Your task to perform on an android device: Is it going to rain tomorrow? Image 0: 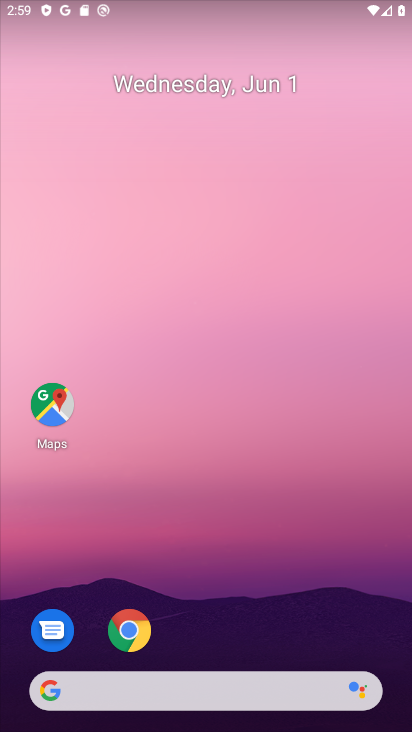
Step 0: drag from (263, 600) to (293, 77)
Your task to perform on an android device: Is it going to rain tomorrow? Image 1: 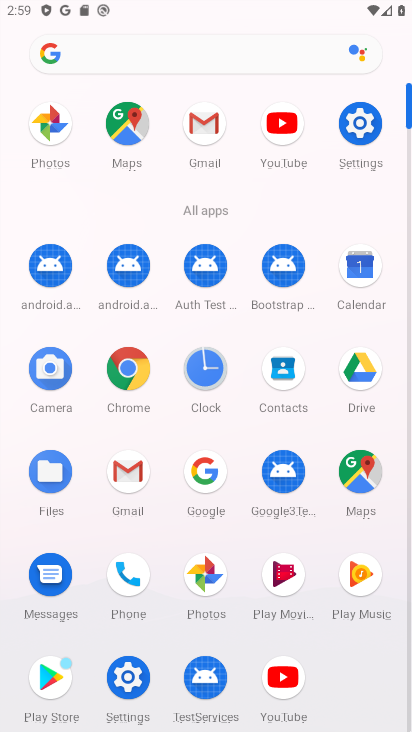
Step 1: click (169, 53)
Your task to perform on an android device: Is it going to rain tomorrow? Image 2: 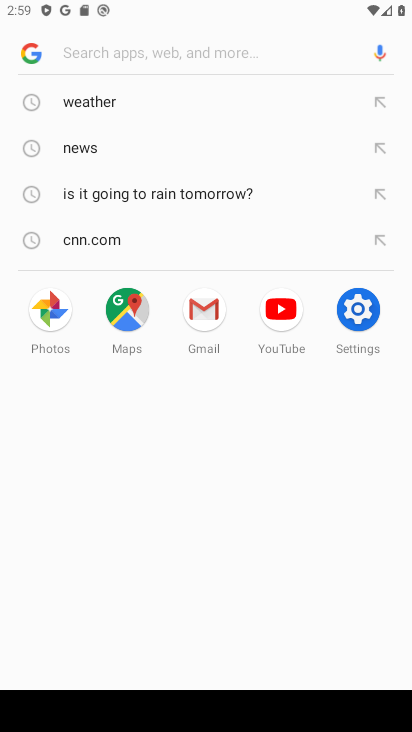
Step 2: click (110, 102)
Your task to perform on an android device: Is it going to rain tomorrow? Image 3: 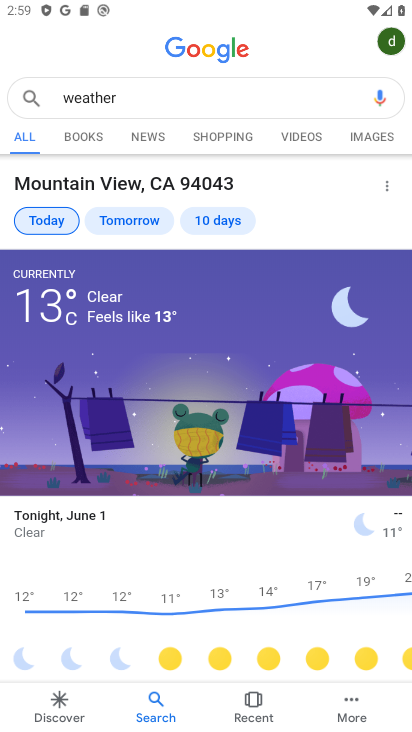
Step 3: click (126, 226)
Your task to perform on an android device: Is it going to rain tomorrow? Image 4: 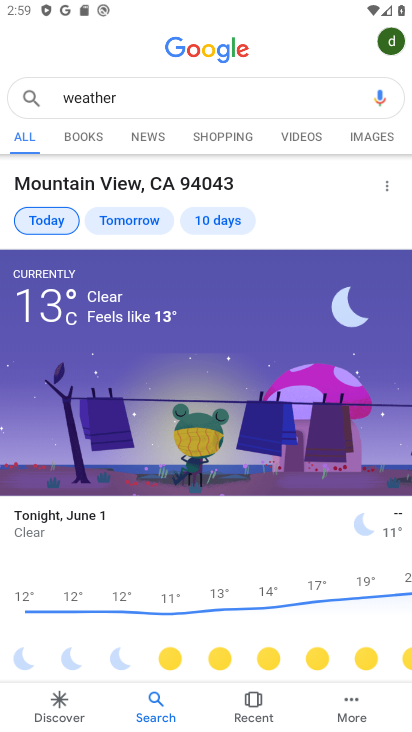
Step 4: click (132, 216)
Your task to perform on an android device: Is it going to rain tomorrow? Image 5: 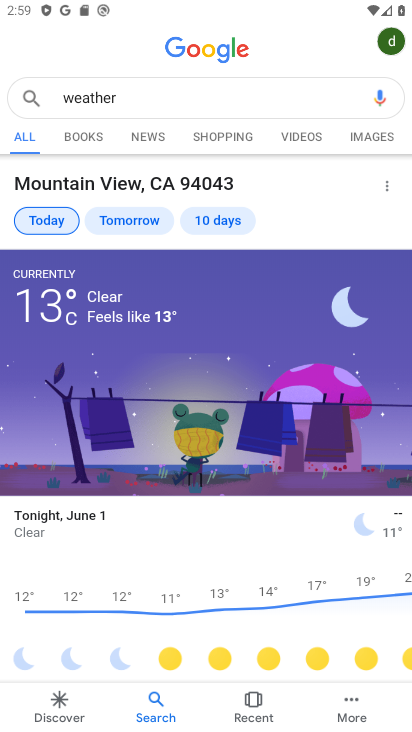
Step 5: click (132, 216)
Your task to perform on an android device: Is it going to rain tomorrow? Image 6: 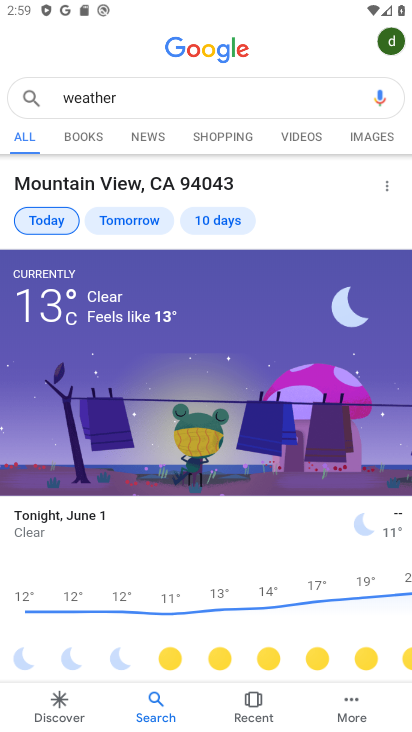
Step 6: task complete